Your task to perform on an android device: star an email in the gmail app Image 0: 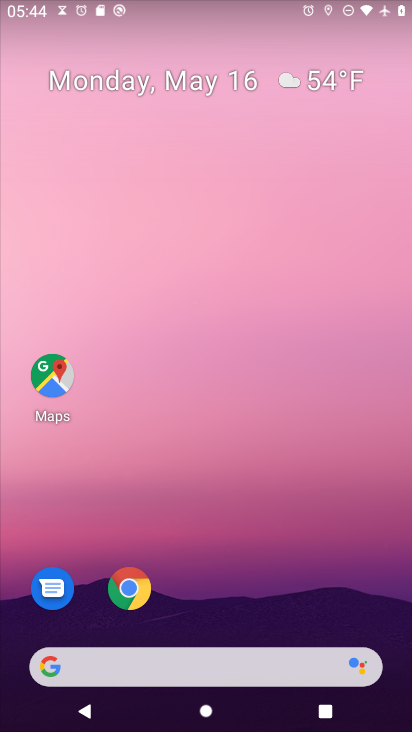
Step 0: drag from (223, 577) to (235, 49)
Your task to perform on an android device: star an email in the gmail app Image 1: 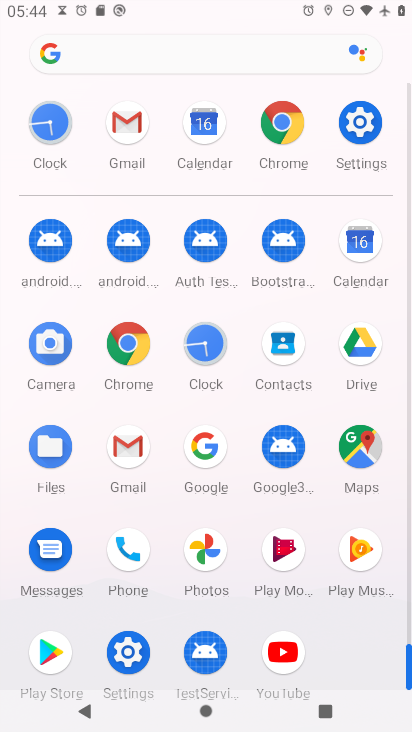
Step 1: drag from (13, 527) to (33, 191)
Your task to perform on an android device: star an email in the gmail app Image 2: 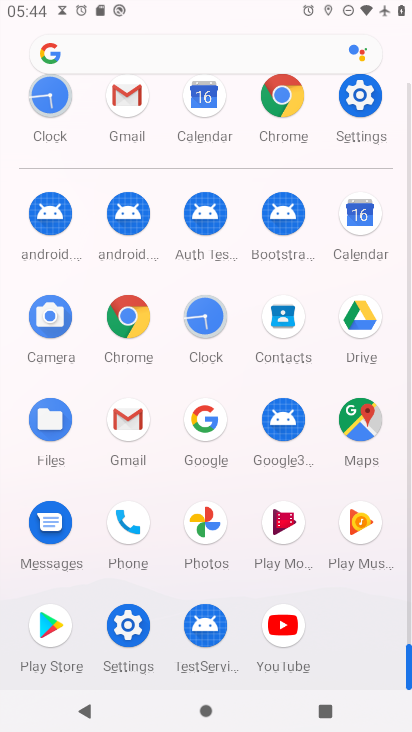
Step 2: click (121, 413)
Your task to perform on an android device: star an email in the gmail app Image 3: 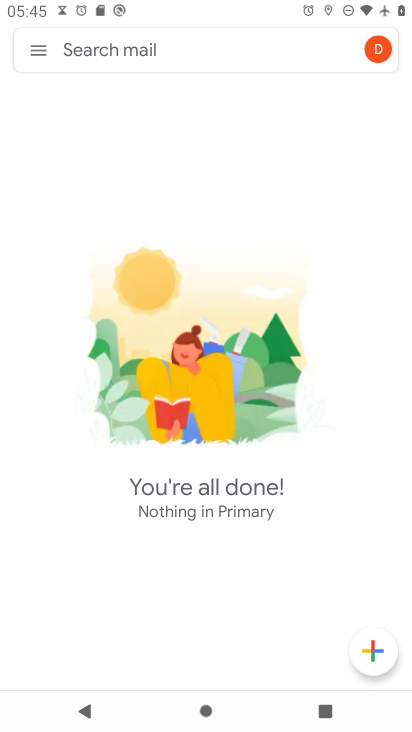
Step 3: click (42, 50)
Your task to perform on an android device: star an email in the gmail app Image 4: 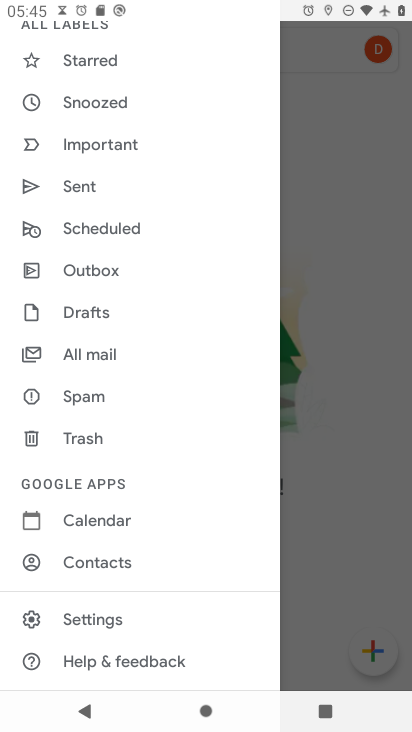
Step 4: drag from (177, 106) to (134, 395)
Your task to perform on an android device: star an email in the gmail app Image 5: 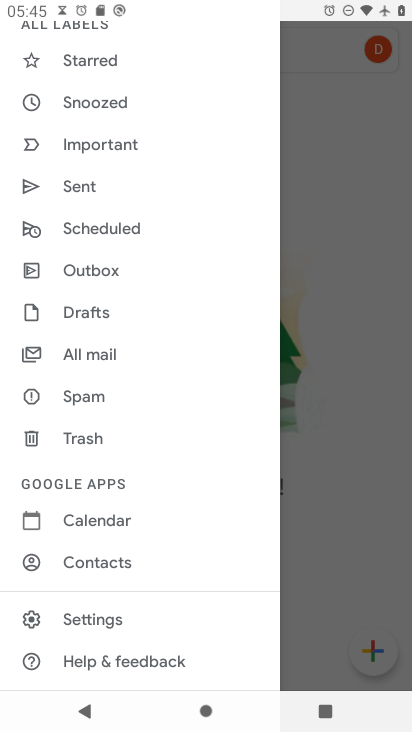
Step 5: click (92, 65)
Your task to perform on an android device: star an email in the gmail app Image 6: 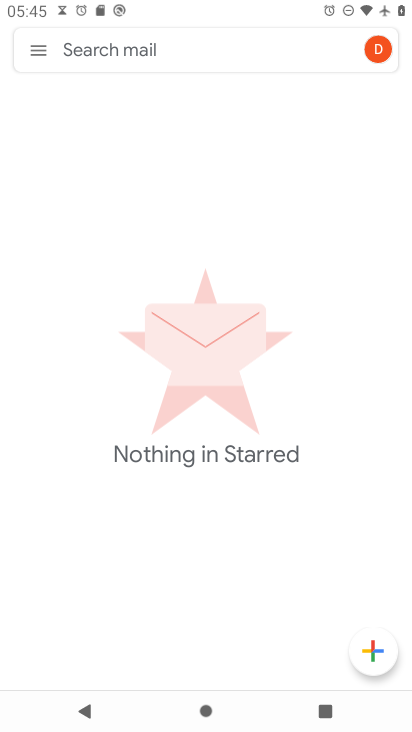
Step 6: task complete